Your task to perform on an android device: Open location settings Image 0: 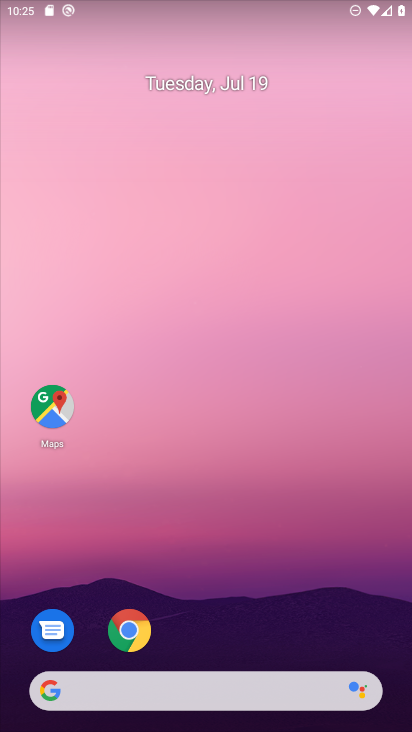
Step 0: drag from (211, 640) to (217, 124)
Your task to perform on an android device: Open location settings Image 1: 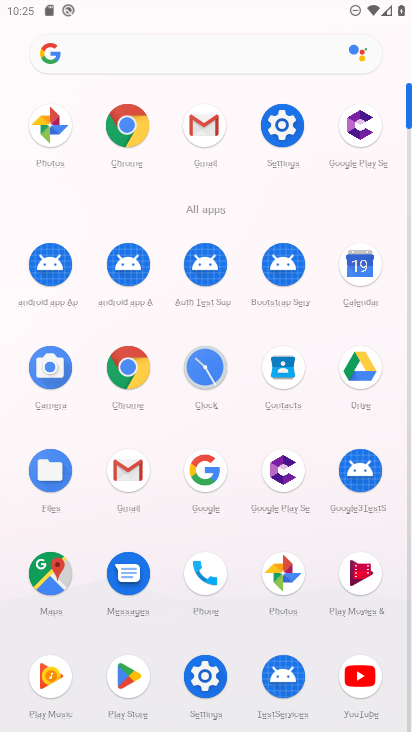
Step 1: click (283, 114)
Your task to perform on an android device: Open location settings Image 2: 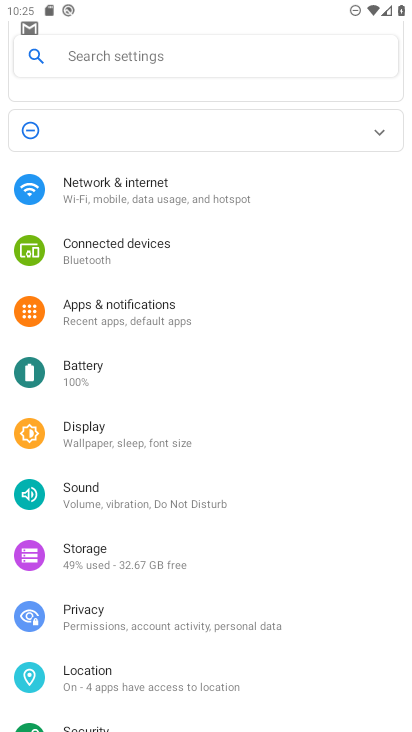
Step 2: click (144, 680)
Your task to perform on an android device: Open location settings Image 3: 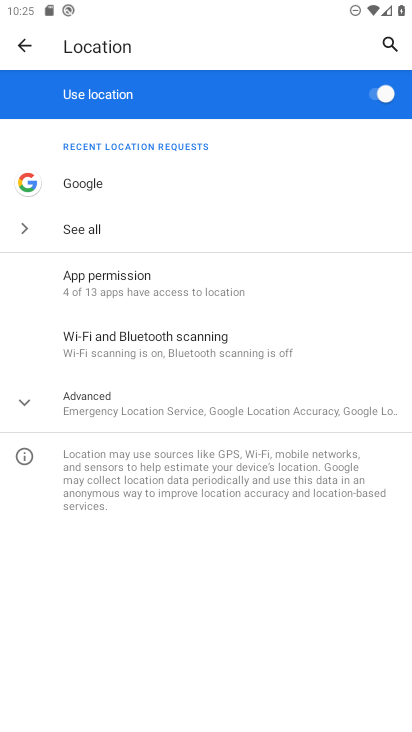
Step 3: task complete